Your task to perform on an android device: turn off javascript in the chrome app Image 0: 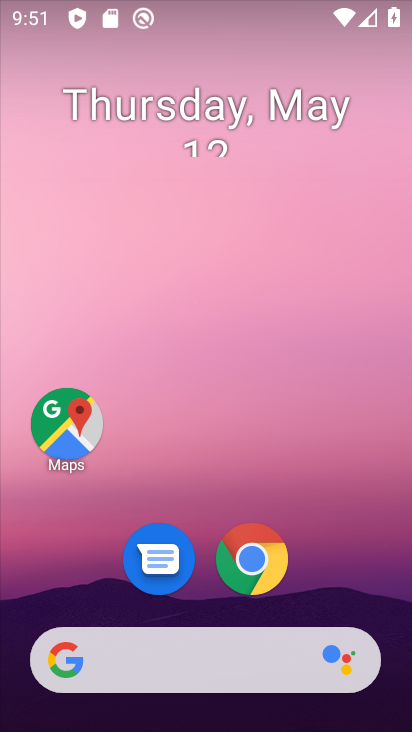
Step 0: click (235, 552)
Your task to perform on an android device: turn off javascript in the chrome app Image 1: 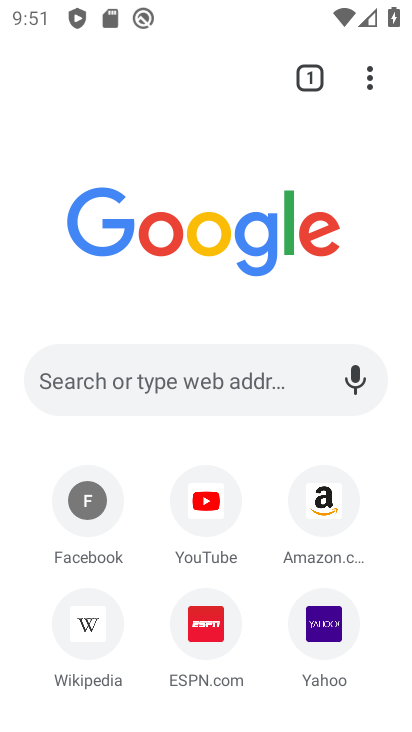
Step 1: press home button
Your task to perform on an android device: turn off javascript in the chrome app Image 2: 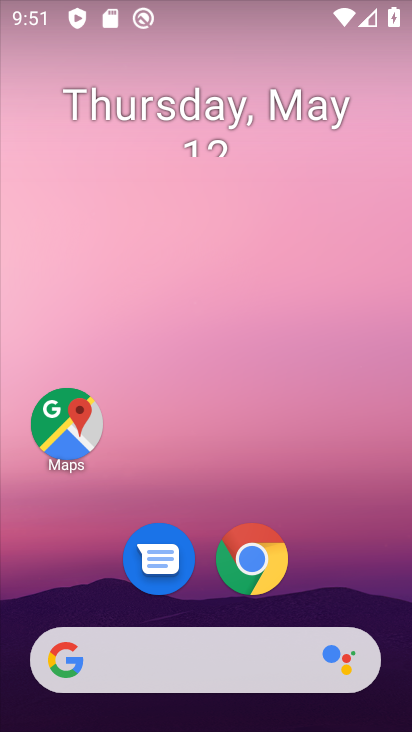
Step 2: click (226, 569)
Your task to perform on an android device: turn off javascript in the chrome app Image 3: 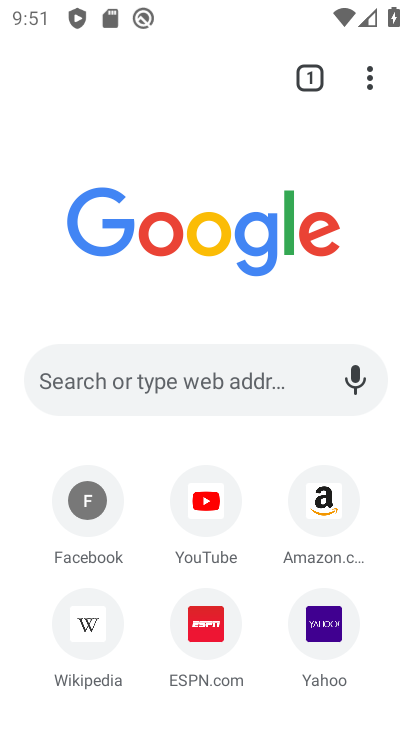
Step 3: click (365, 67)
Your task to perform on an android device: turn off javascript in the chrome app Image 4: 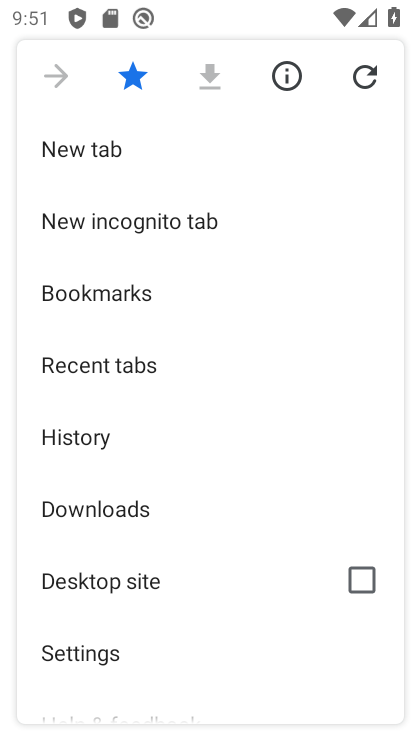
Step 4: drag from (145, 498) to (196, 253)
Your task to perform on an android device: turn off javascript in the chrome app Image 5: 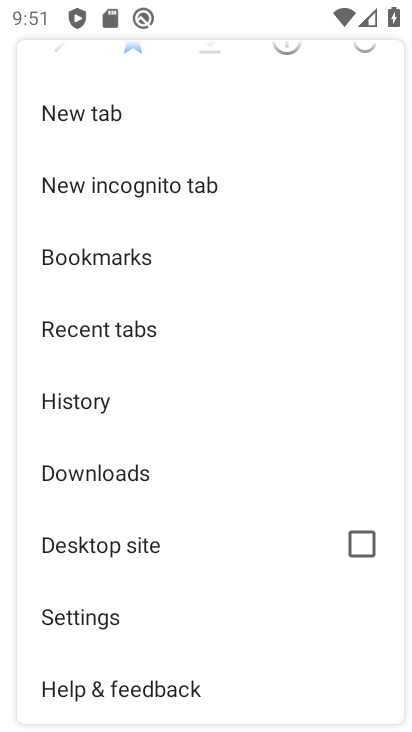
Step 5: drag from (130, 610) to (164, 317)
Your task to perform on an android device: turn off javascript in the chrome app Image 6: 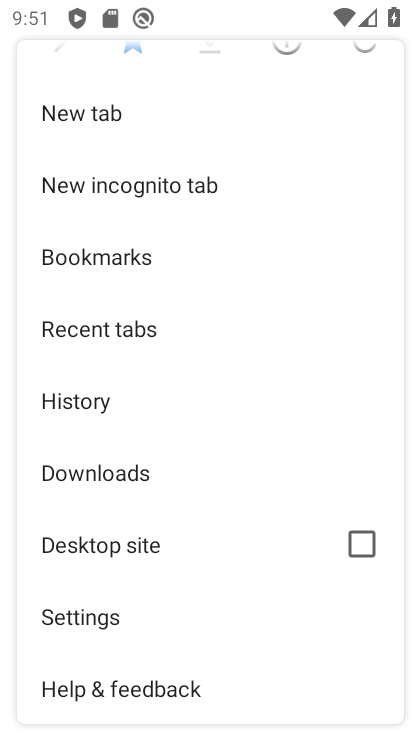
Step 6: click (92, 625)
Your task to perform on an android device: turn off javascript in the chrome app Image 7: 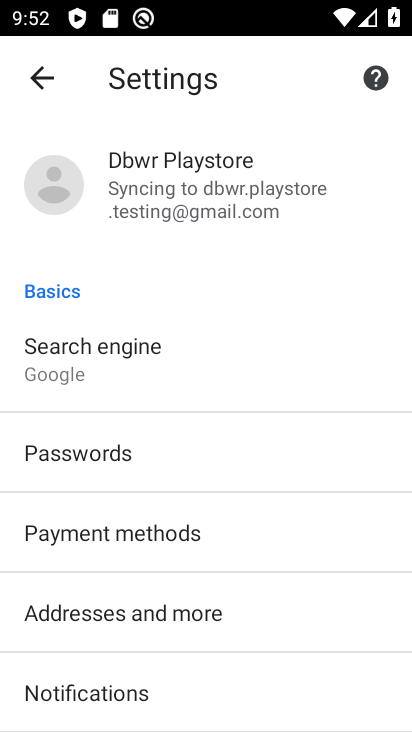
Step 7: drag from (186, 584) to (189, 319)
Your task to perform on an android device: turn off javascript in the chrome app Image 8: 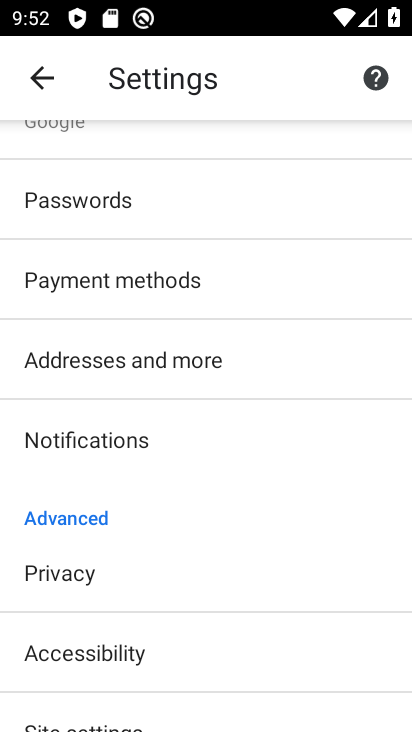
Step 8: drag from (116, 617) to (157, 339)
Your task to perform on an android device: turn off javascript in the chrome app Image 9: 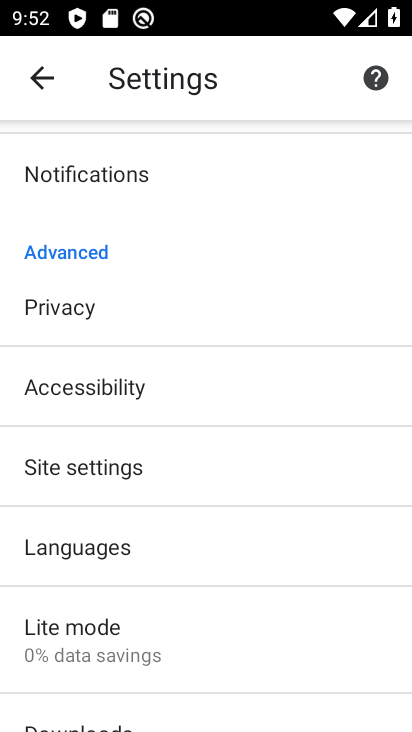
Step 9: click (64, 637)
Your task to perform on an android device: turn off javascript in the chrome app Image 10: 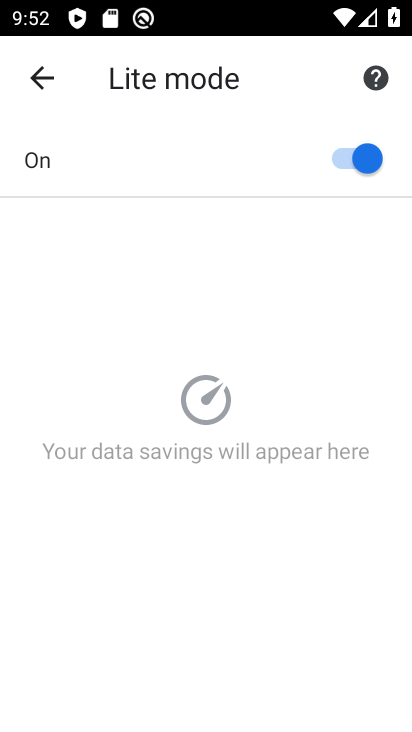
Step 10: click (348, 163)
Your task to perform on an android device: turn off javascript in the chrome app Image 11: 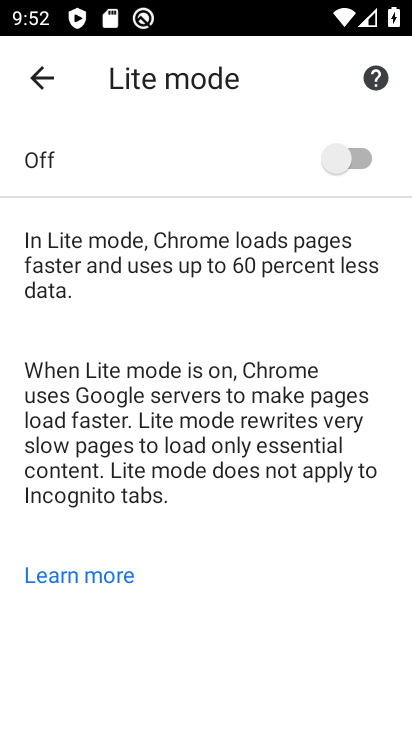
Step 11: task complete